Your task to perform on an android device: all mails in gmail Image 0: 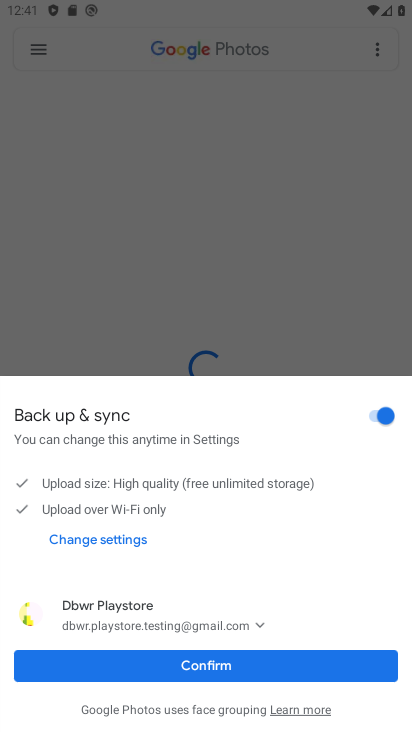
Step 0: press back button
Your task to perform on an android device: all mails in gmail Image 1: 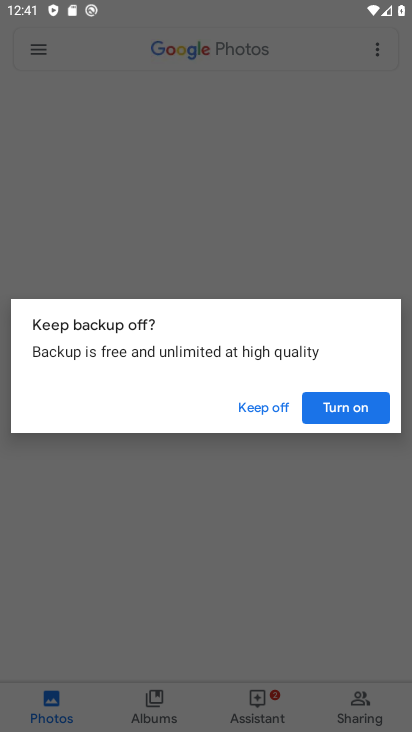
Step 1: press home button
Your task to perform on an android device: all mails in gmail Image 2: 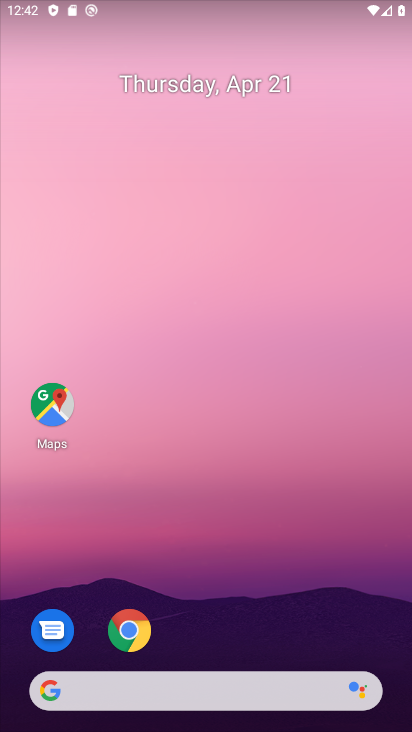
Step 2: drag from (231, 650) to (217, 157)
Your task to perform on an android device: all mails in gmail Image 3: 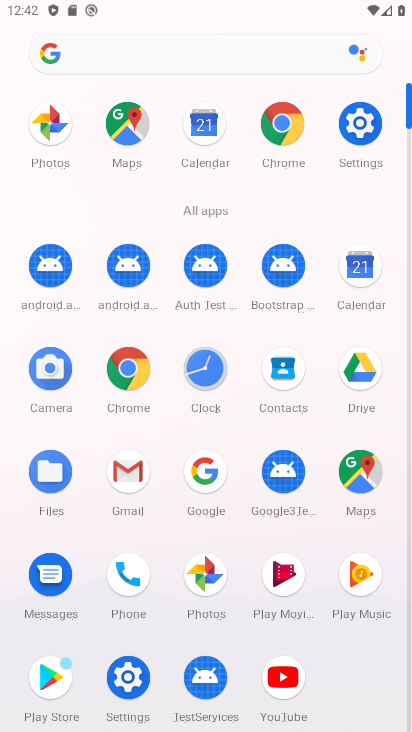
Step 3: click (130, 474)
Your task to perform on an android device: all mails in gmail Image 4: 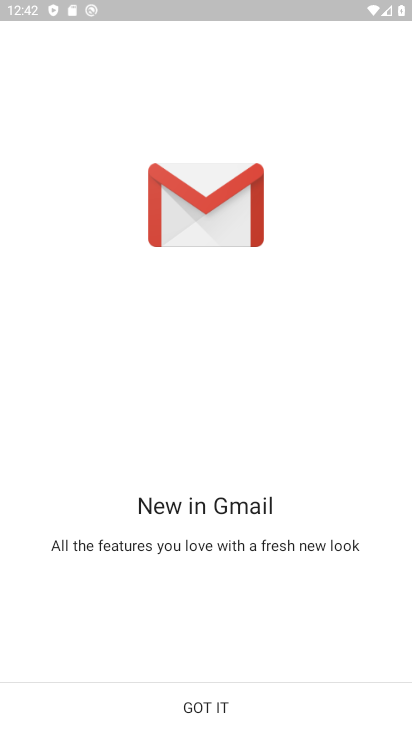
Step 4: click (249, 701)
Your task to perform on an android device: all mails in gmail Image 5: 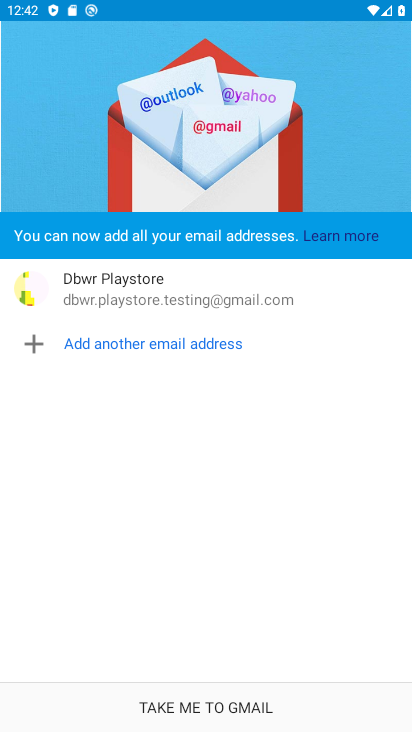
Step 5: click (249, 701)
Your task to perform on an android device: all mails in gmail Image 6: 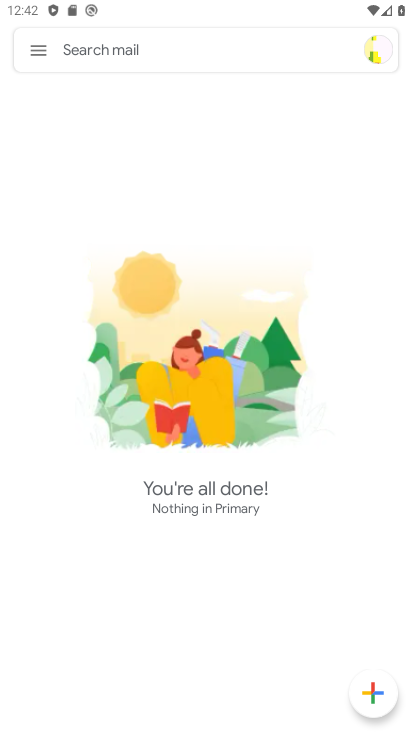
Step 6: click (36, 54)
Your task to perform on an android device: all mails in gmail Image 7: 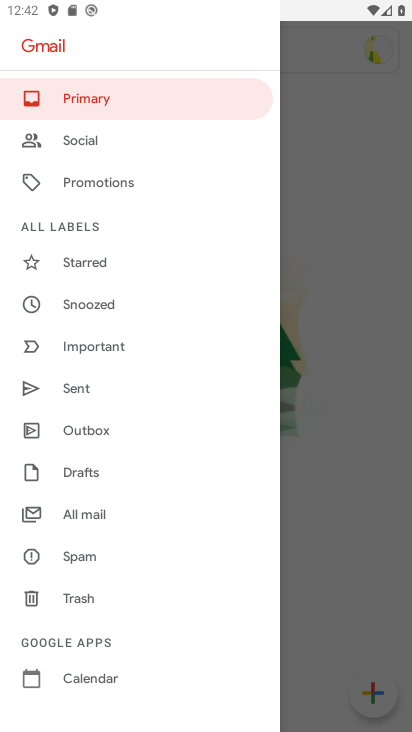
Step 7: click (98, 522)
Your task to perform on an android device: all mails in gmail Image 8: 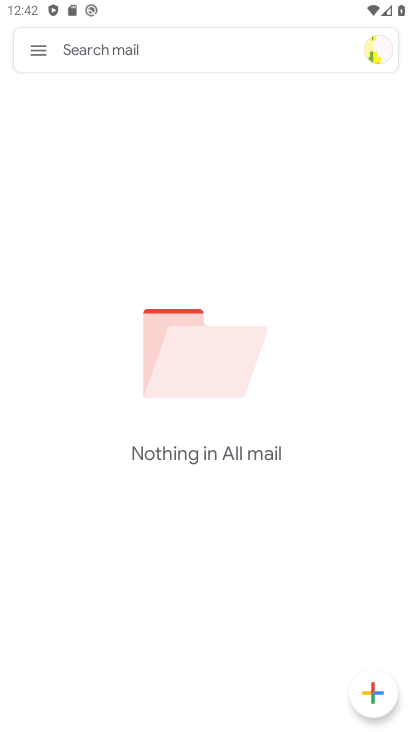
Step 8: task complete